Your task to perform on an android device: Go to Google maps Image 0: 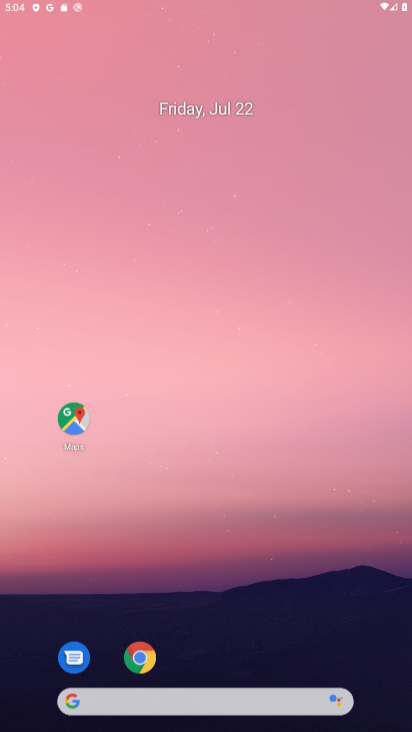
Step 0: press home button
Your task to perform on an android device: Go to Google maps Image 1: 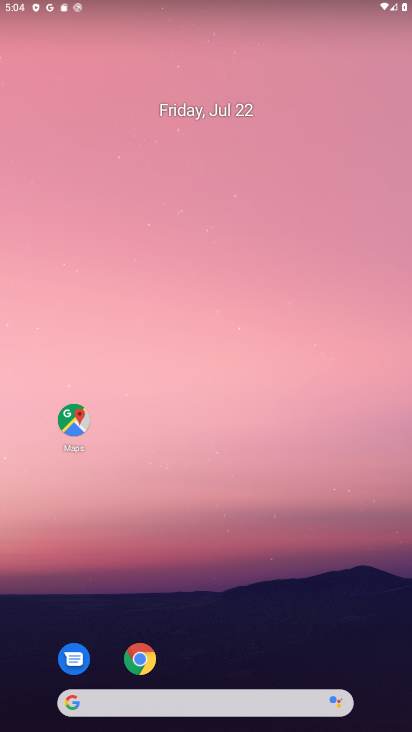
Step 1: click (69, 416)
Your task to perform on an android device: Go to Google maps Image 2: 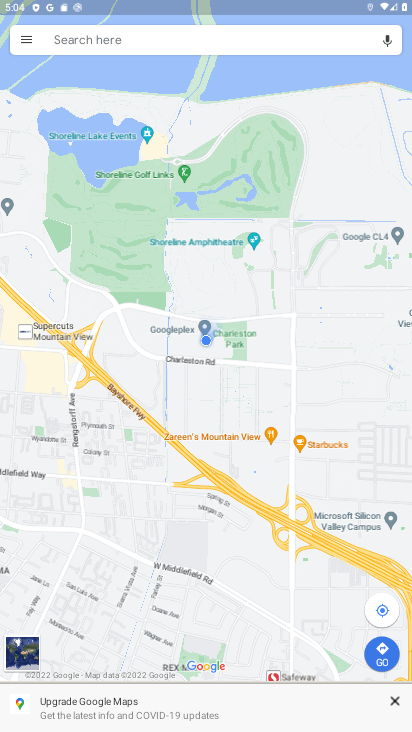
Step 2: click (19, 41)
Your task to perform on an android device: Go to Google maps Image 3: 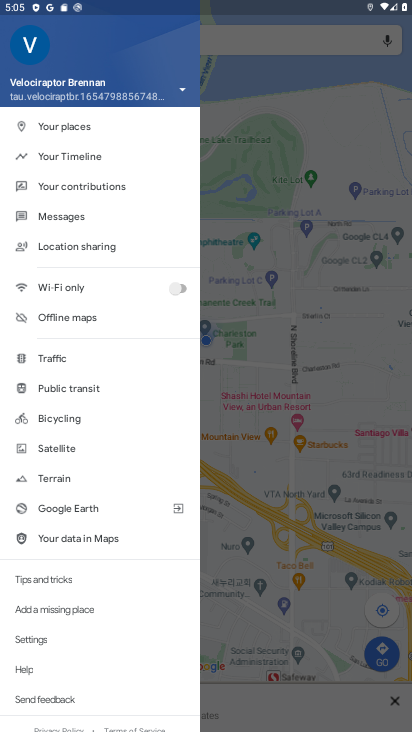
Step 3: task complete